Your task to perform on an android device: refresh tabs in the chrome app Image 0: 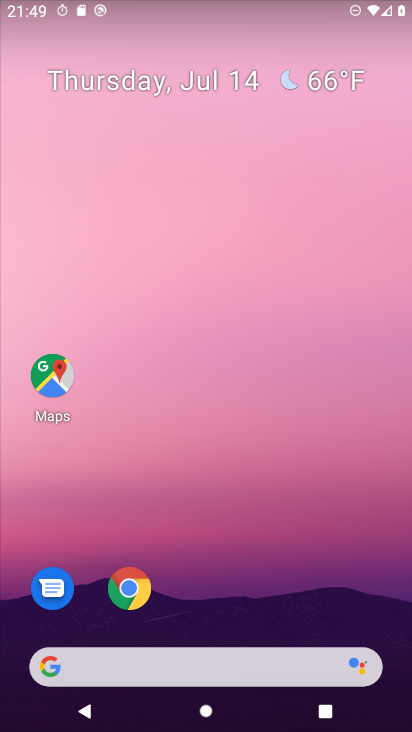
Step 0: drag from (343, 609) to (339, 133)
Your task to perform on an android device: refresh tabs in the chrome app Image 1: 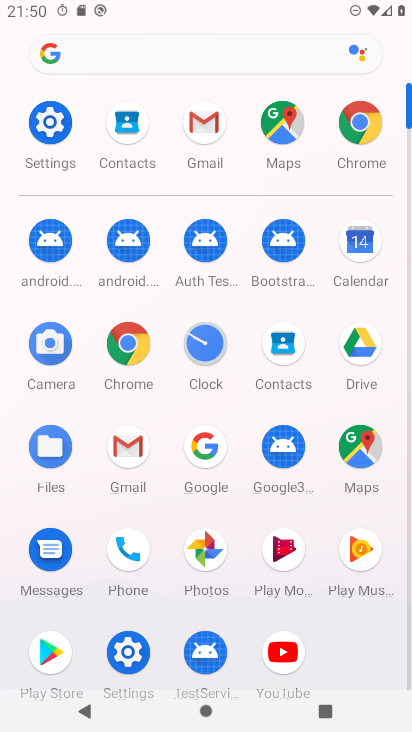
Step 1: click (134, 349)
Your task to perform on an android device: refresh tabs in the chrome app Image 2: 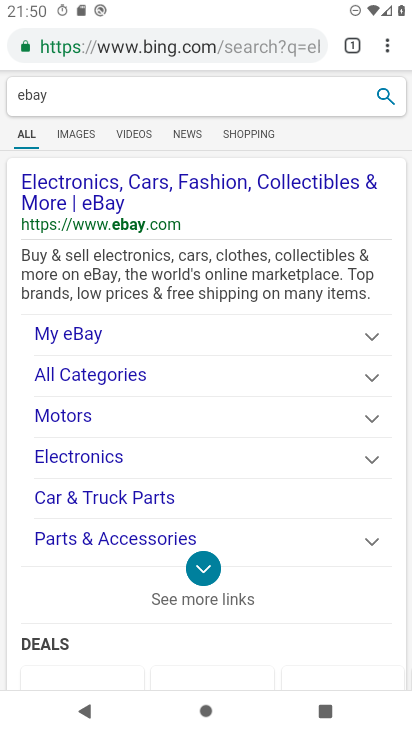
Step 2: click (385, 50)
Your task to perform on an android device: refresh tabs in the chrome app Image 3: 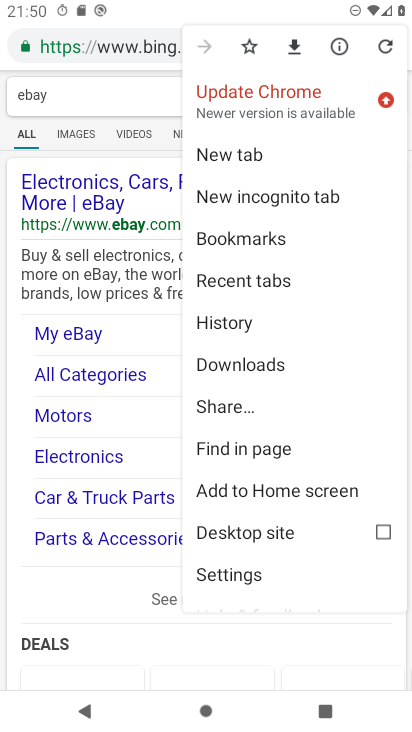
Step 3: click (388, 49)
Your task to perform on an android device: refresh tabs in the chrome app Image 4: 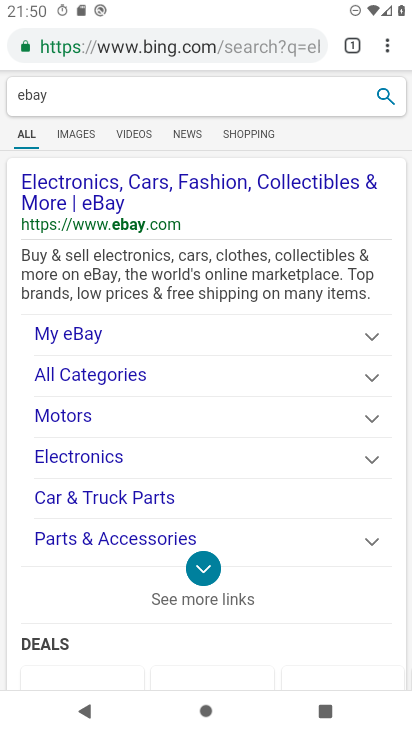
Step 4: task complete